Your task to perform on an android device: toggle wifi Image 0: 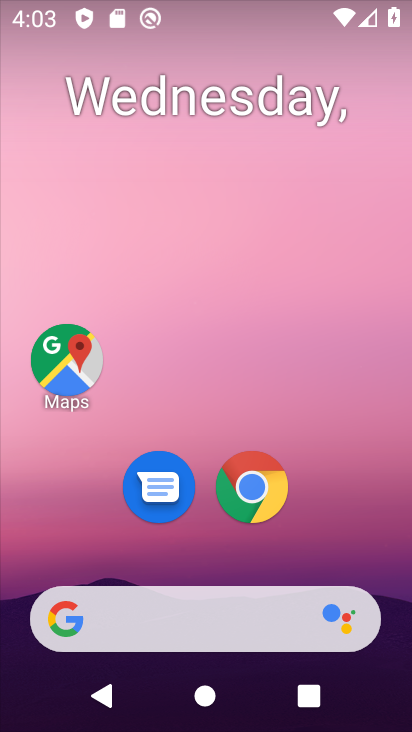
Step 0: drag from (225, 15) to (250, 411)
Your task to perform on an android device: toggle wifi Image 1: 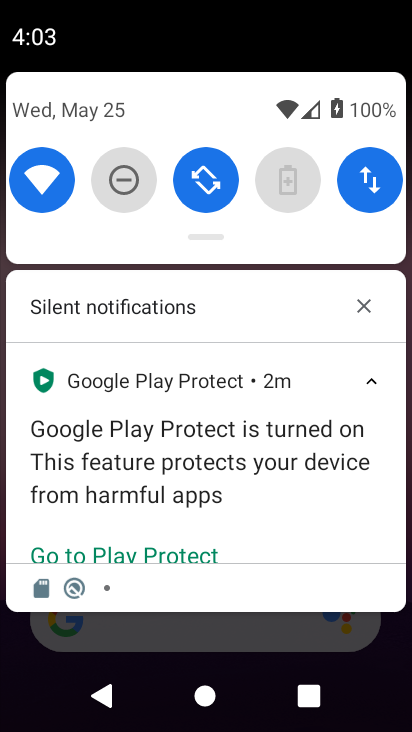
Step 1: click (46, 177)
Your task to perform on an android device: toggle wifi Image 2: 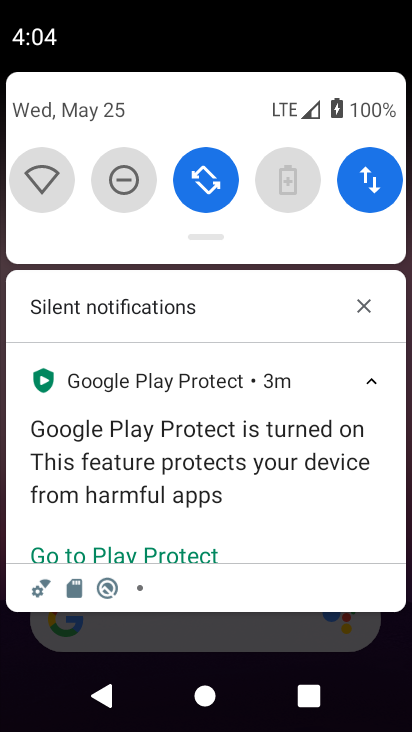
Step 2: task complete